Your task to perform on an android device: open a bookmark in the chrome app Image 0: 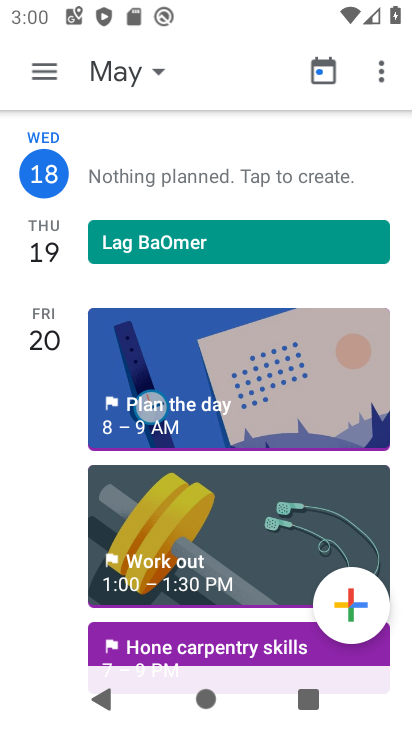
Step 0: press back button
Your task to perform on an android device: open a bookmark in the chrome app Image 1: 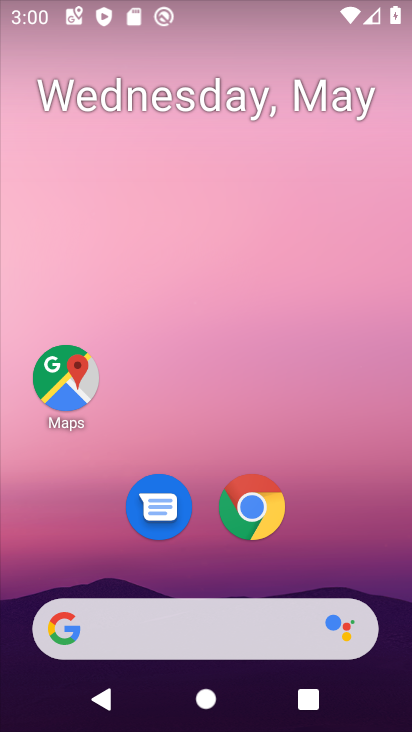
Step 1: click (248, 520)
Your task to perform on an android device: open a bookmark in the chrome app Image 2: 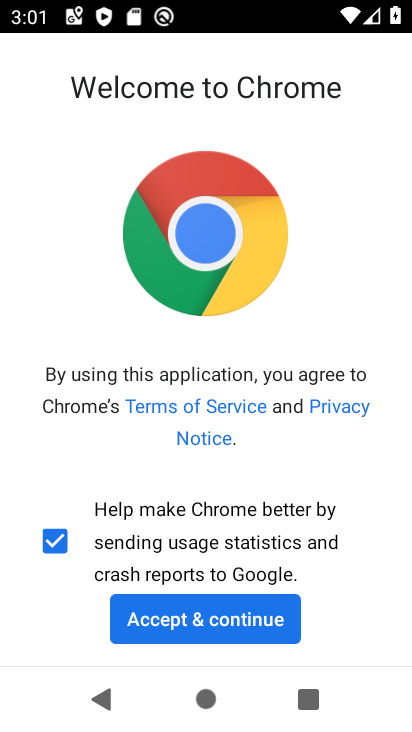
Step 2: click (205, 627)
Your task to perform on an android device: open a bookmark in the chrome app Image 3: 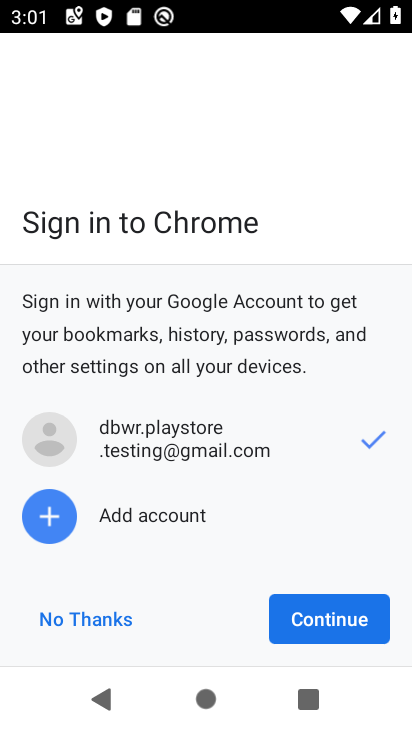
Step 3: click (333, 619)
Your task to perform on an android device: open a bookmark in the chrome app Image 4: 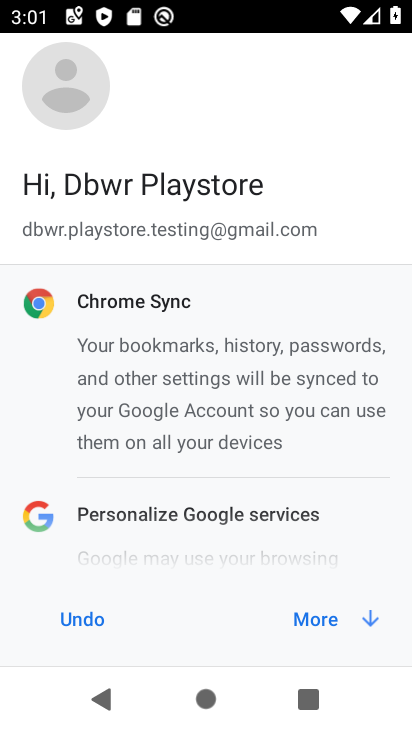
Step 4: click (314, 611)
Your task to perform on an android device: open a bookmark in the chrome app Image 5: 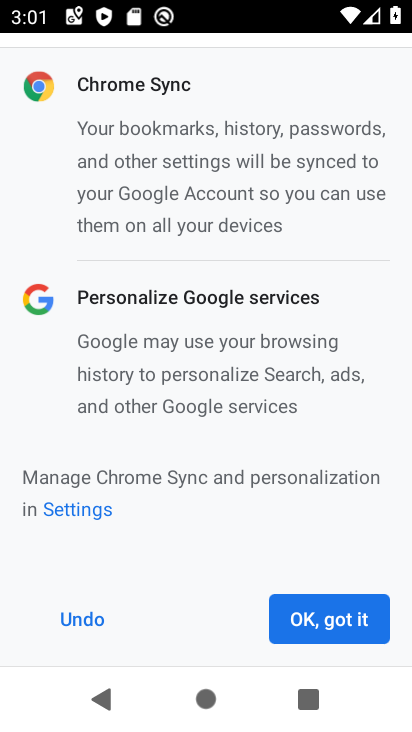
Step 5: click (322, 611)
Your task to perform on an android device: open a bookmark in the chrome app Image 6: 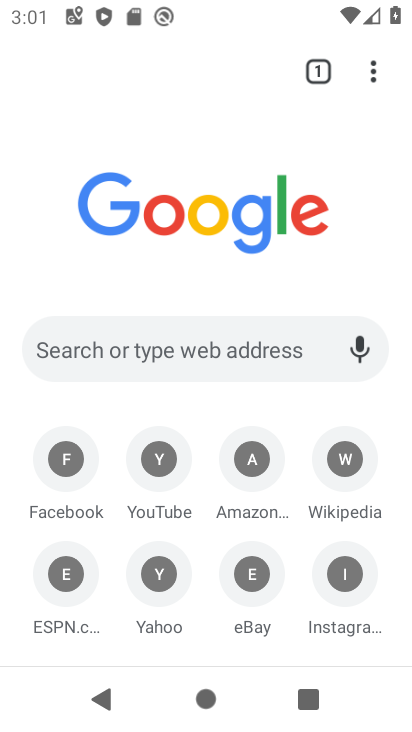
Step 6: task complete